Your task to perform on an android device: find photos in the google photos app Image 0: 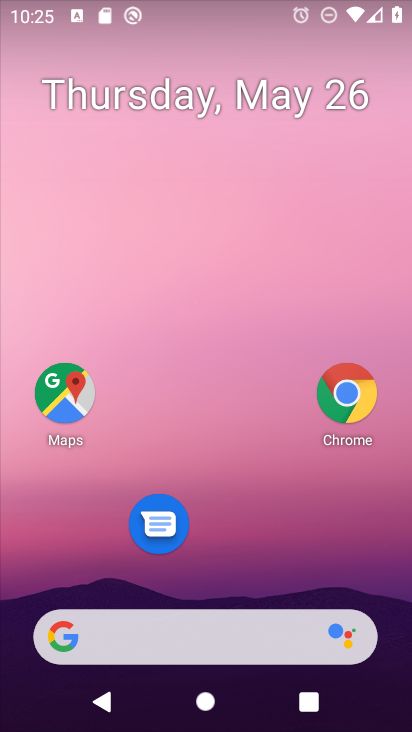
Step 0: drag from (245, 468) to (267, 47)
Your task to perform on an android device: find photos in the google photos app Image 1: 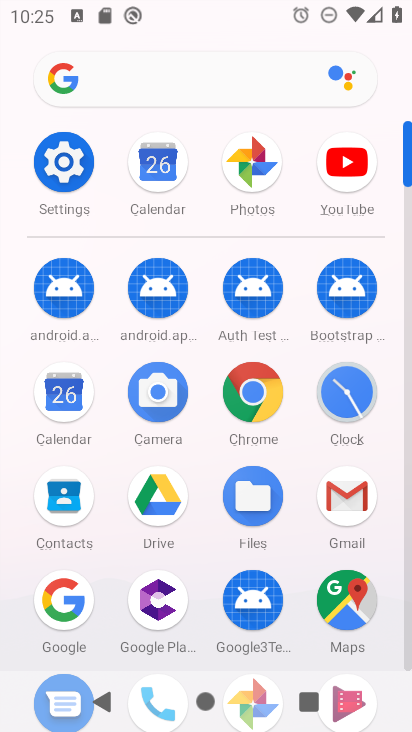
Step 1: click (246, 158)
Your task to perform on an android device: find photos in the google photos app Image 2: 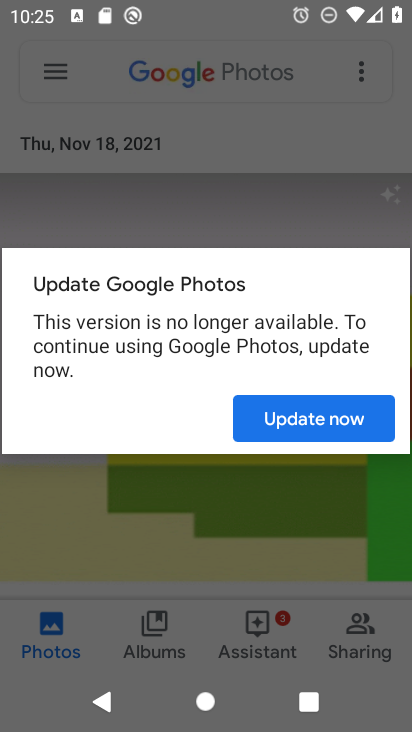
Step 2: click (377, 415)
Your task to perform on an android device: find photos in the google photos app Image 3: 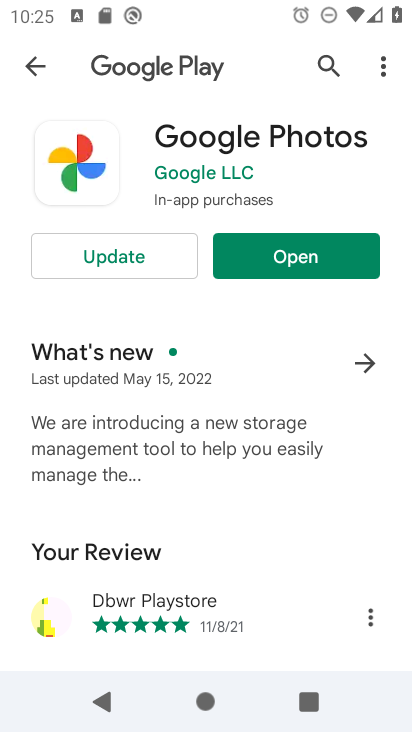
Step 3: click (337, 253)
Your task to perform on an android device: find photos in the google photos app Image 4: 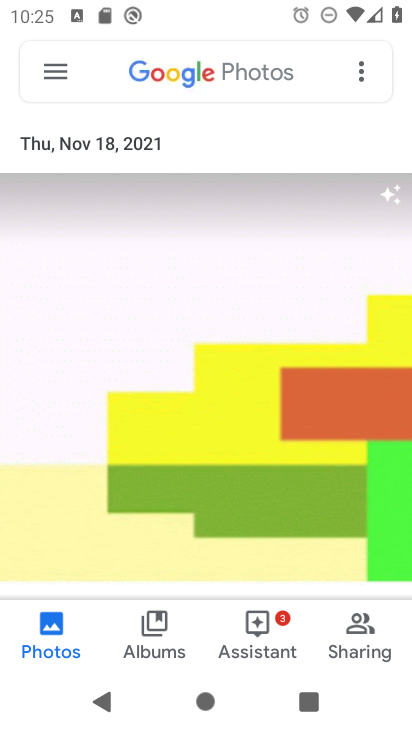
Step 4: drag from (158, 488) to (214, 98)
Your task to perform on an android device: find photos in the google photos app Image 5: 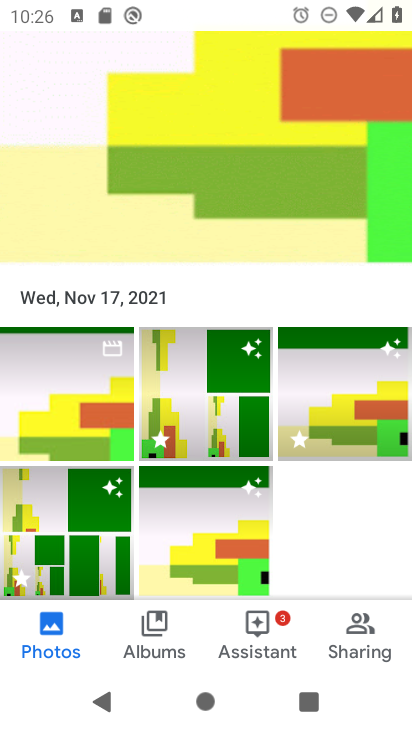
Step 5: drag from (216, 99) to (234, 421)
Your task to perform on an android device: find photos in the google photos app Image 6: 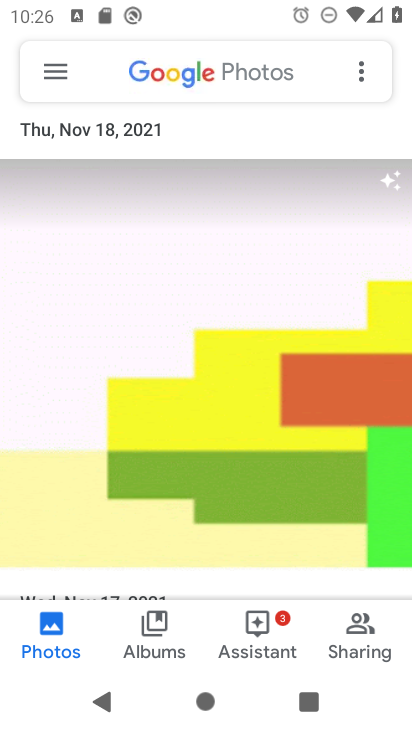
Step 6: click (239, 349)
Your task to perform on an android device: find photos in the google photos app Image 7: 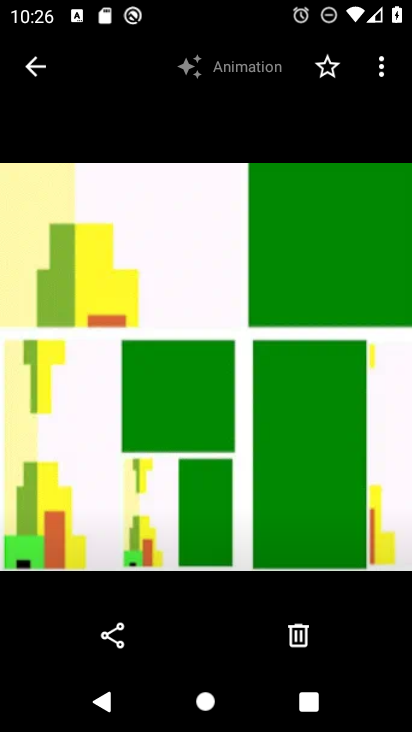
Step 7: click (379, 72)
Your task to perform on an android device: find photos in the google photos app Image 8: 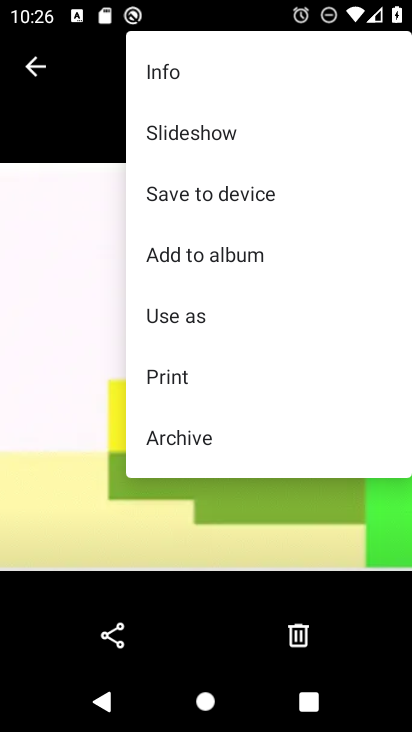
Step 8: click (92, 393)
Your task to perform on an android device: find photos in the google photos app Image 9: 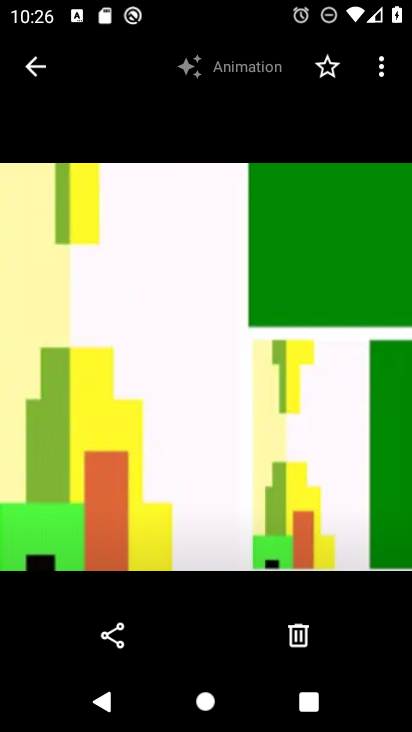
Step 9: click (39, 73)
Your task to perform on an android device: find photos in the google photos app Image 10: 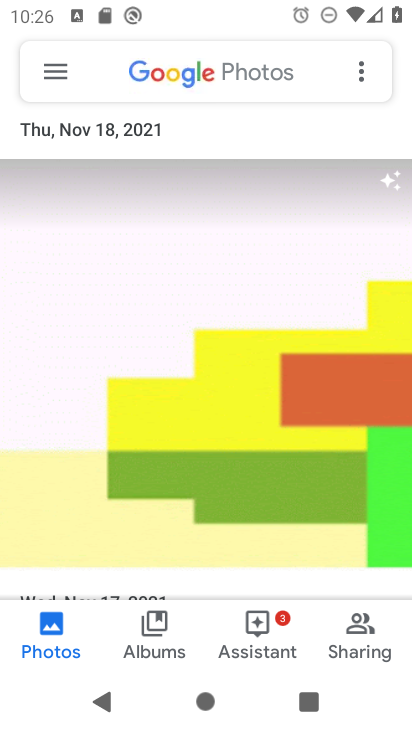
Step 10: task complete